Your task to perform on an android device: Open calendar and show me the first week of next month Image 0: 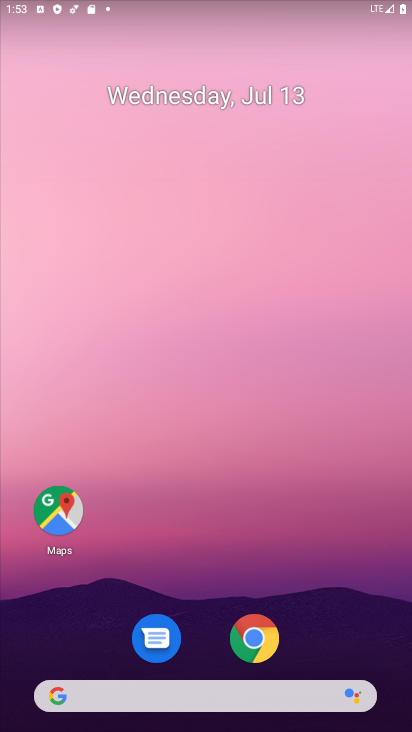
Step 0: drag from (99, 712) to (221, 8)
Your task to perform on an android device: Open calendar and show me the first week of next month Image 1: 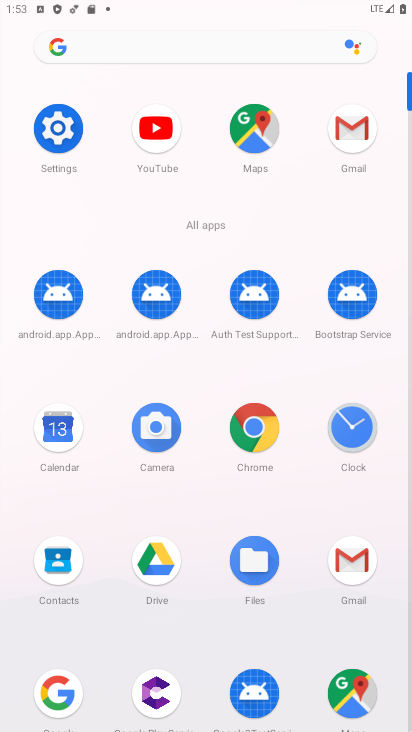
Step 1: click (62, 424)
Your task to perform on an android device: Open calendar and show me the first week of next month Image 2: 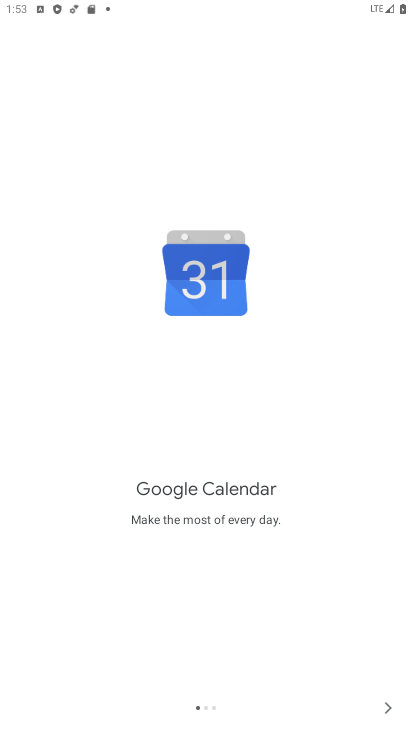
Step 2: click (390, 713)
Your task to perform on an android device: Open calendar and show me the first week of next month Image 3: 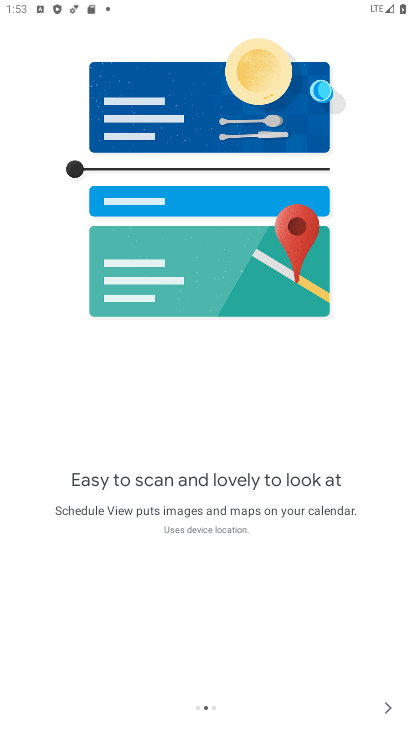
Step 3: click (387, 715)
Your task to perform on an android device: Open calendar and show me the first week of next month Image 4: 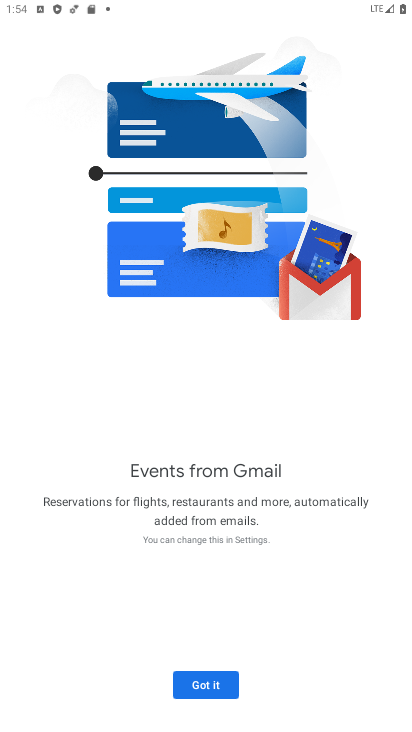
Step 4: click (206, 683)
Your task to perform on an android device: Open calendar and show me the first week of next month Image 5: 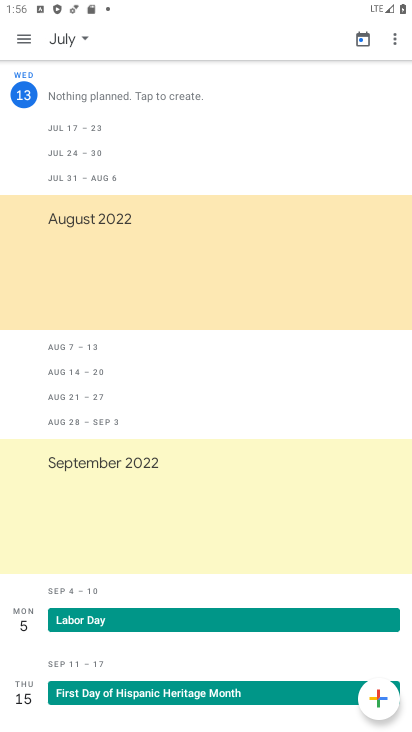
Step 5: click (66, 53)
Your task to perform on an android device: Open calendar and show me the first week of next month Image 6: 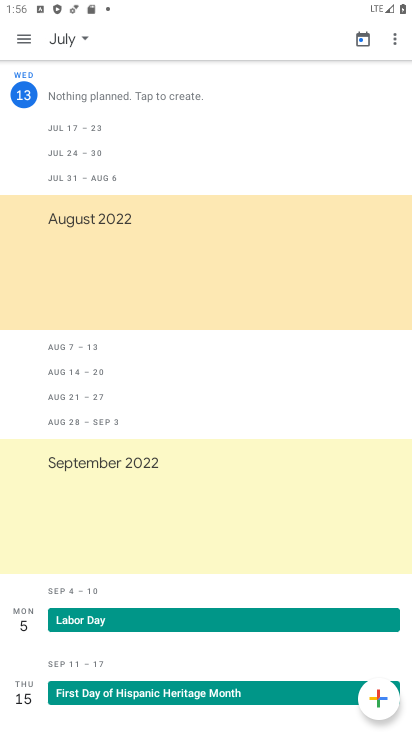
Step 6: click (56, 39)
Your task to perform on an android device: Open calendar and show me the first week of next month Image 7: 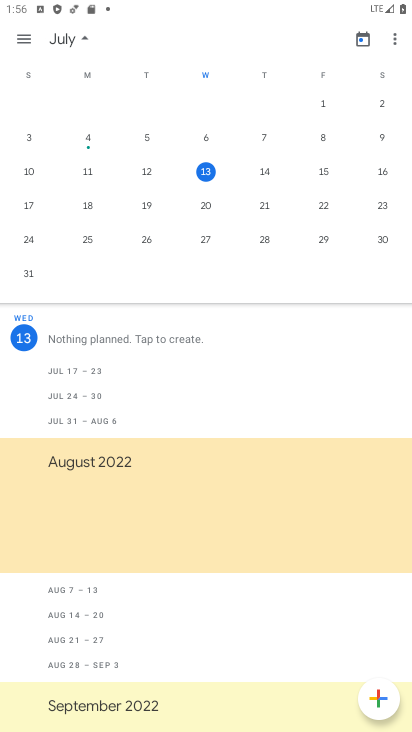
Step 7: task complete